Your task to perform on an android device: Open Wikipedia Image 0: 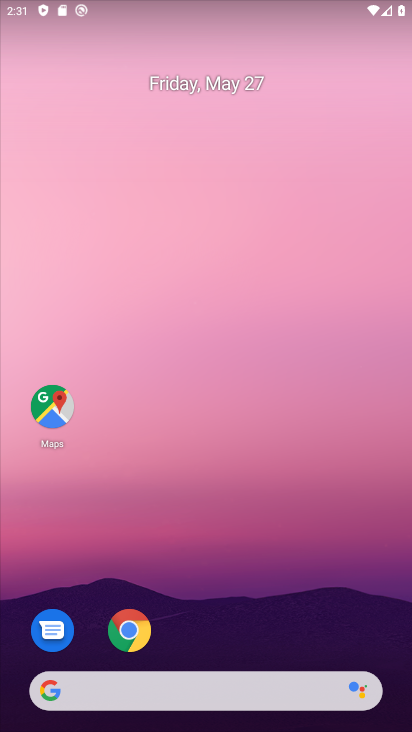
Step 0: click (135, 635)
Your task to perform on an android device: Open Wikipedia Image 1: 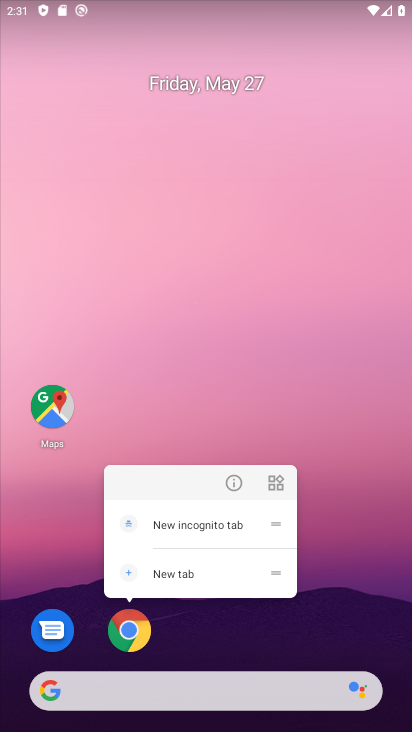
Step 1: click (128, 622)
Your task to perform on an android device: Open Wikipedia Image 2: 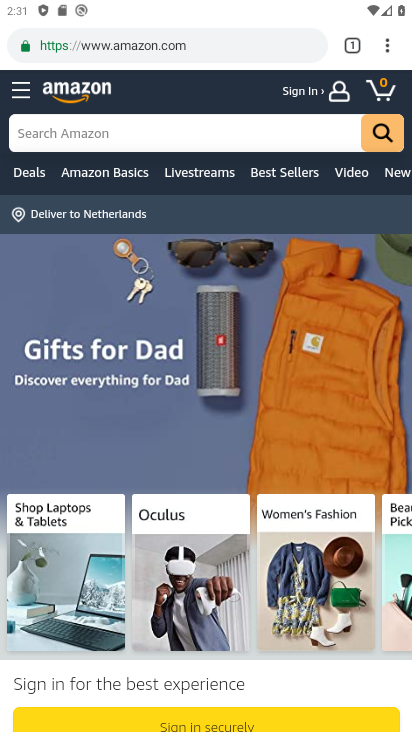
Step 2: click (357, 37)
Your task to perform on an android device: Open Wikipedia Image 3: 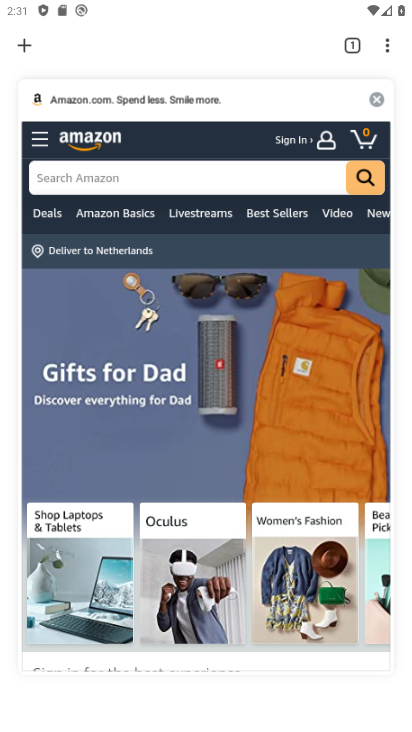
Step 3: click (16, 50)
Your task to perform on an android device: Open Wikipedia Image 4: 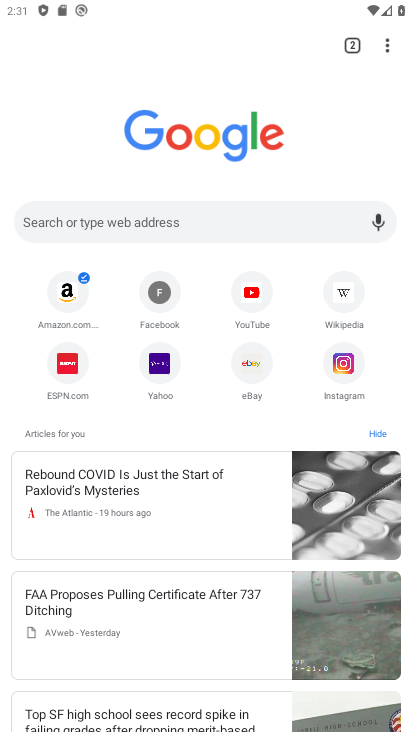
Step 4: click (335, 302)
Your task to perform on an android device: Open Wikipedia Image 5: 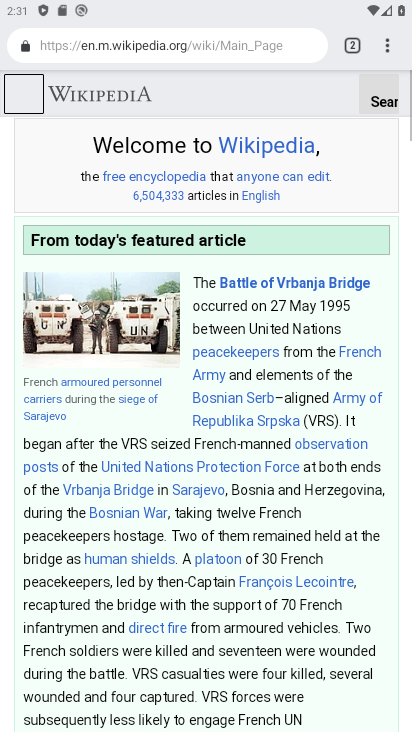
Step 5: task complete